Your task to perform on an android device: open chrome privacy settings Image 0: 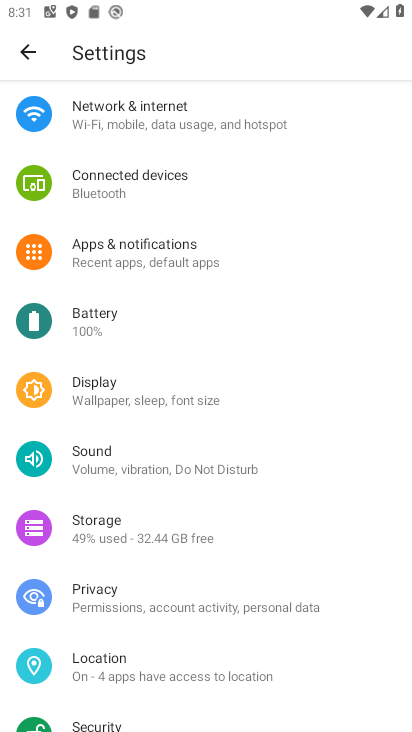
Step 0: press home button
Your task to perform on an android device: open chrome privacy settings Image 1: 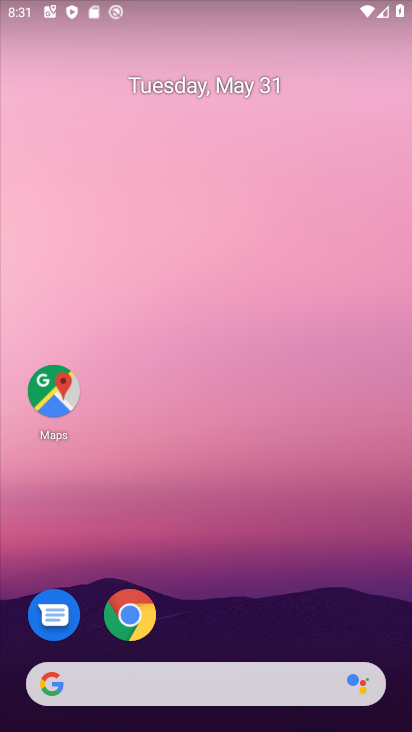
Step 1: click (127, 616)
Your task to perform on an android device: open chrome privacy settings Image 2: 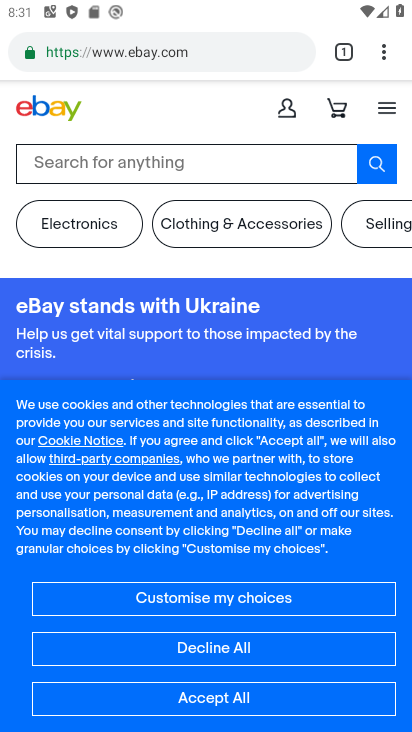
Step 2: click (386, 58)
Your task to perform on an android device: open chrome privacy settings Image 3: 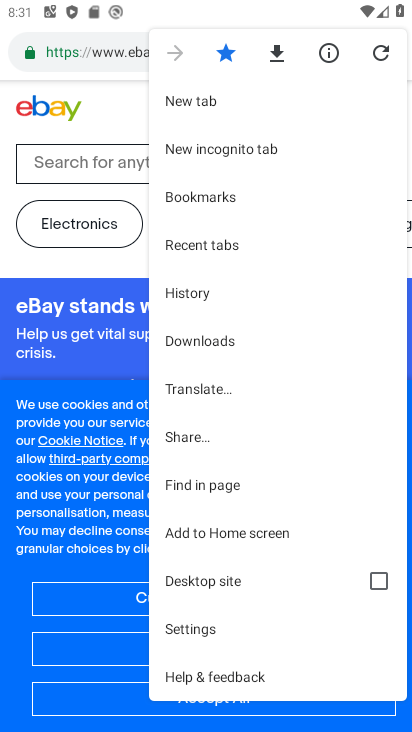
Step 3: click (205, 631)
Your task to perform on an android device: open chrome privacy settings Image 4: 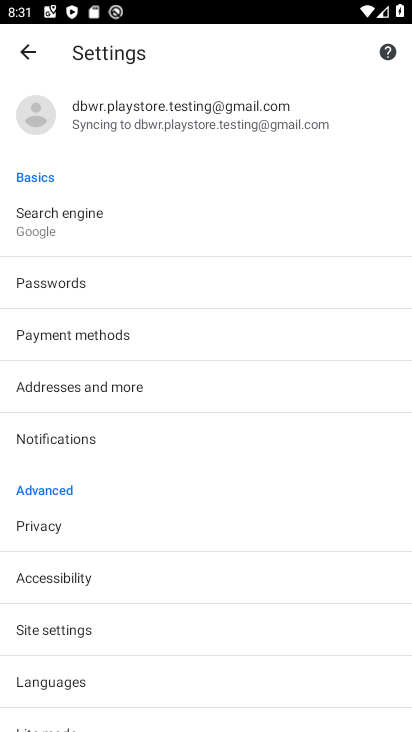
Step 4: drag from (205, 633) to (215, 400)
Your task to perform on an android device: open chrome privacy settings Image 5: 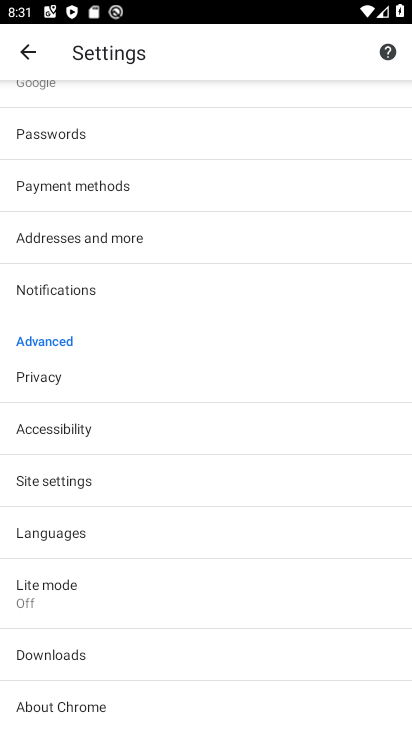
Step 5: click (49, 378)
Your task to perform on an android device: open chrome privacy settings Image 6: 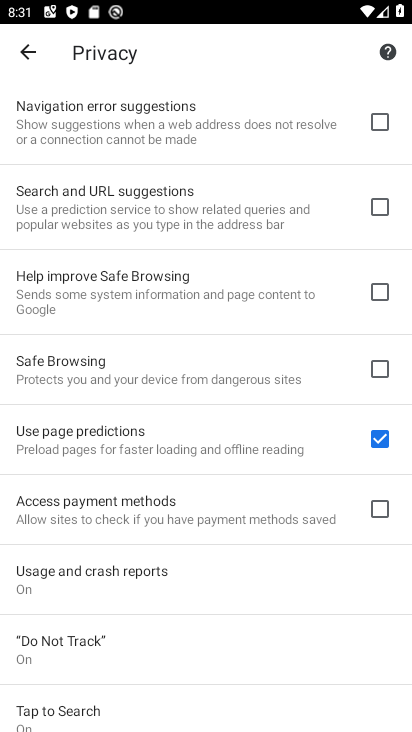
Step 6: task complete